Your task to perform on an android device: turn pop-ups on in chrome Image 0: 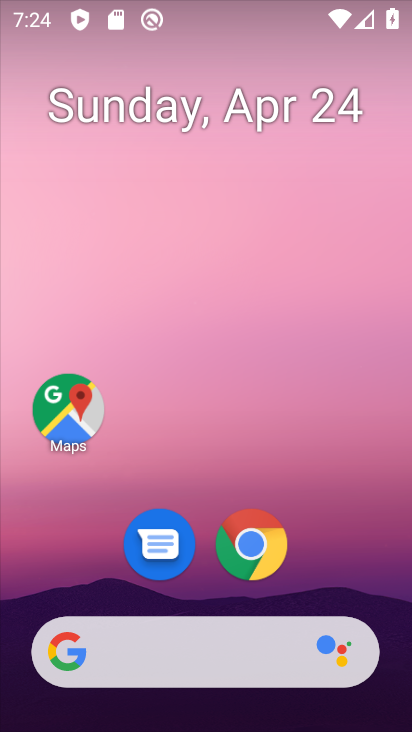
Step 0: drag from (183, 619) to (319, 131)
Your task to perform on an android device: turn pop-ups on in chrome Image 1: 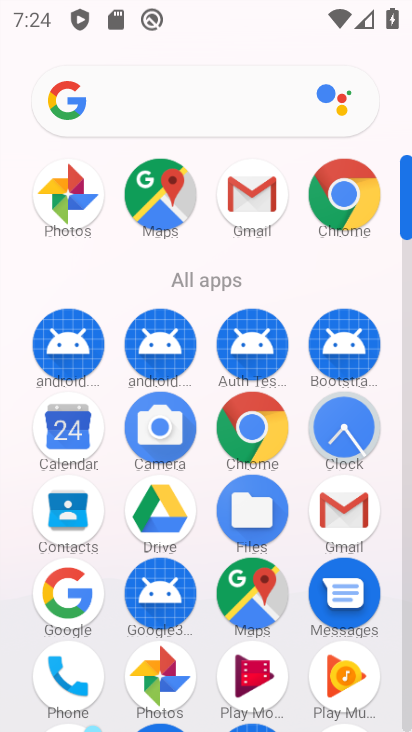
Step 1: click (342, 210)
Your task to perform on an android device: turn pop-ups on in chrome Image 2: 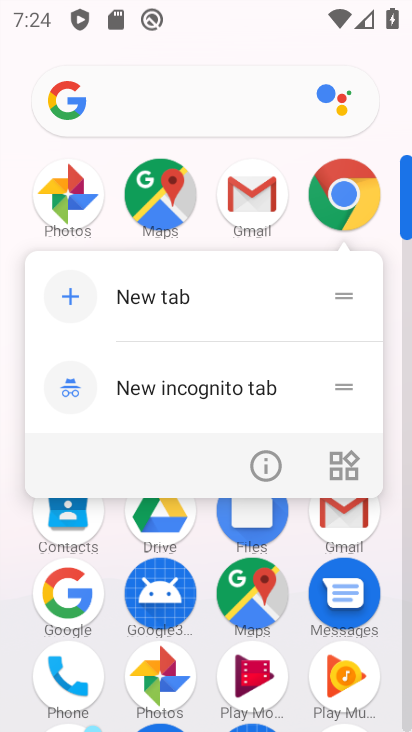
Step 2: click (345, 206)
Your task to perform on an android device: turn pop-ups on in chrome Image 3: 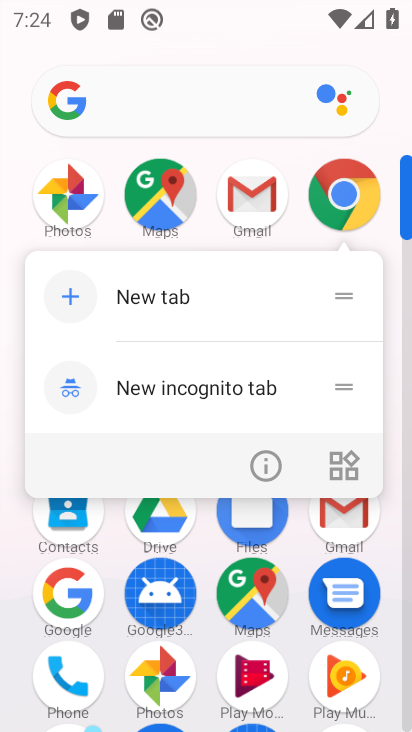
Step 3: click (344, 200)
Your task to perform on an android device: turn pop-ups on in chrome Image 4: 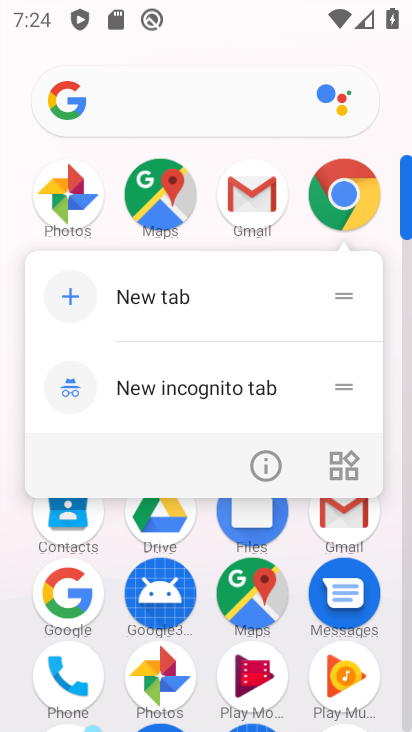
Step 4: click (344, 200)
Your task to perform on an android device: turn pop-ups on in chrome Image 5: 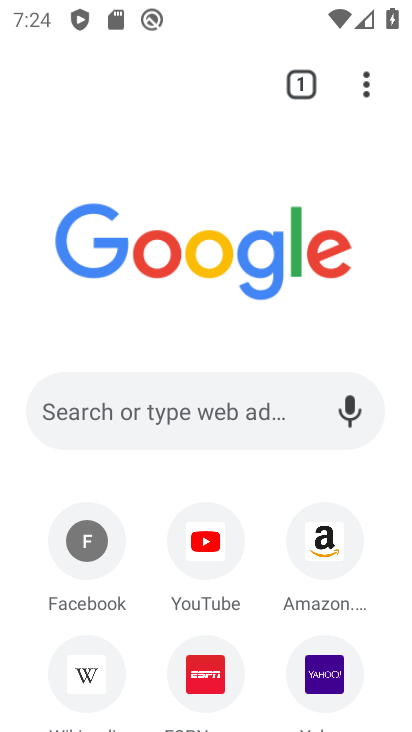
Step 5: click (359, 93)
Your task to perform on an android device: turn pop-ups on in chrome Image 6: 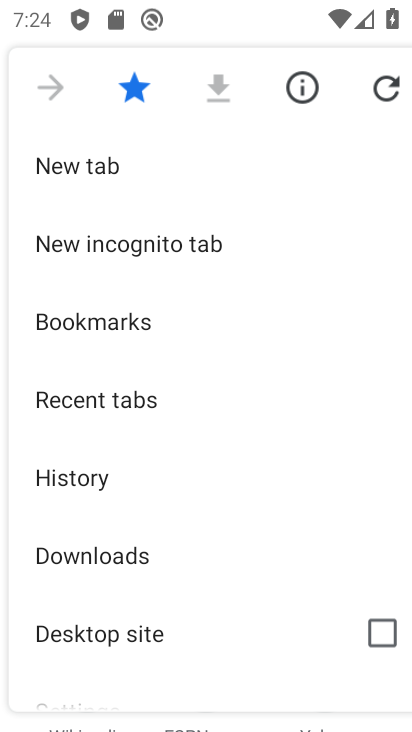
Step 6: drag from (156, 607) to (320, 131)
Your task to perform on an android device: turn pop-ups on in chrome Image 7: 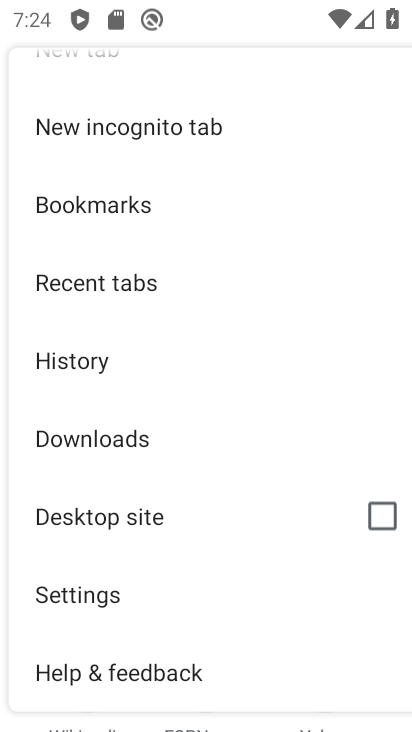
Step 7: click (72, 593)
Your task to perform on an android device: turn pop-ups on in chrome Image 8: 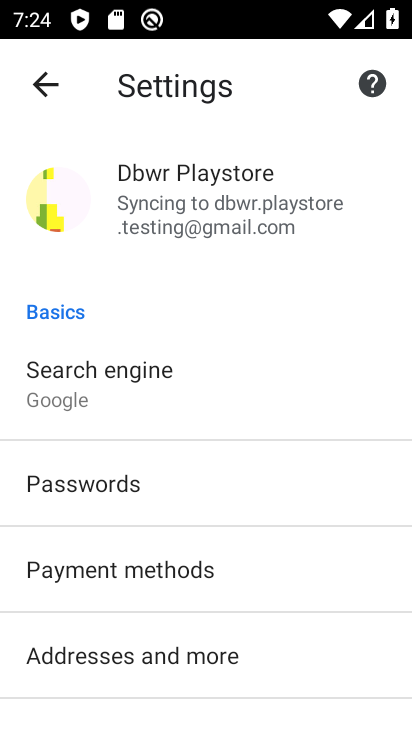
Step 8: drag from (173, 620) to (309, 166)
Your task to perform on an android device: turn pop-ups on in chrome Image 9: 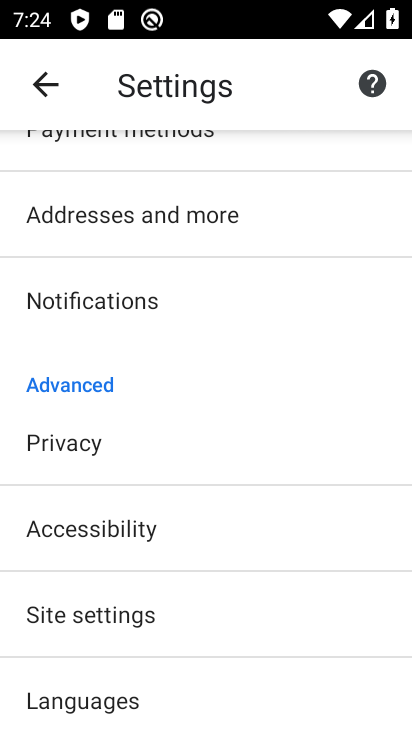
Step 9: click (89, 625)
Your task to perform on an android device: turn pop-ups on in chrome Image 10: 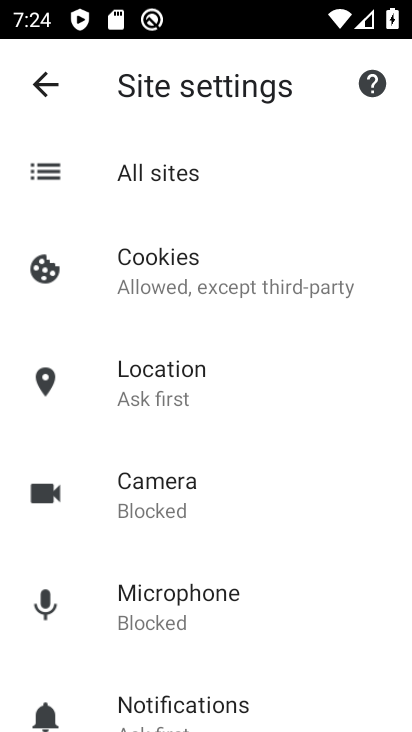
Step 10: drag from (214, 571) to (350, 157)
Your task to perform on an android device: turn pop-ups on in chrome Image 11: 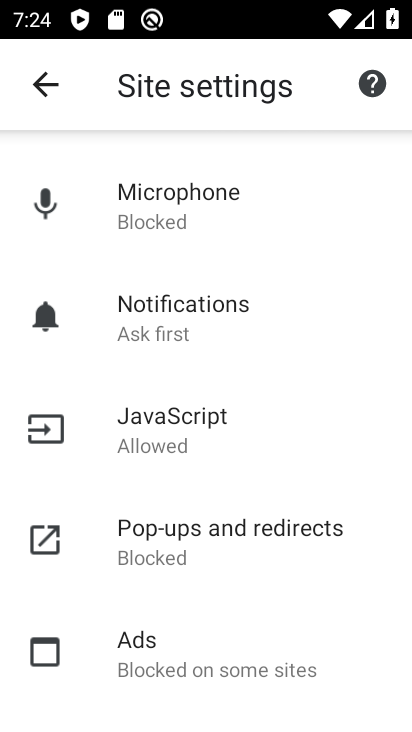
Step 11: click (168, 529)
Your task to perform on an android device: turn pop-ups on in chrome Image 12: 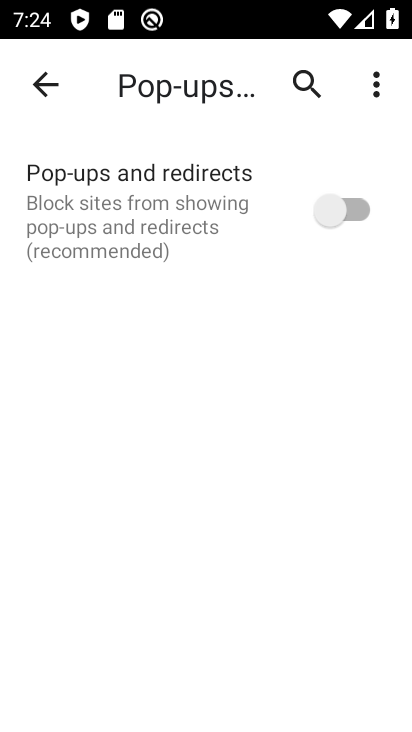
Step 12: click (357, 207)
Your task to perform on an android device: turn pop-ups on in chrome Image 13: 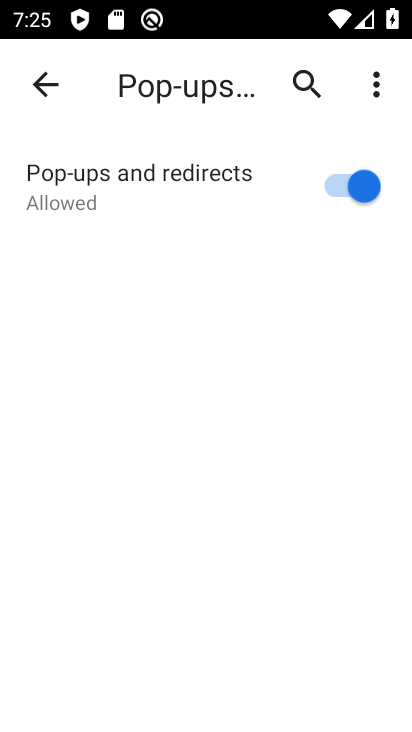
Step 13: task complete